Your task to perform on an android device: manage bookmarks in the chrome app Image 0: 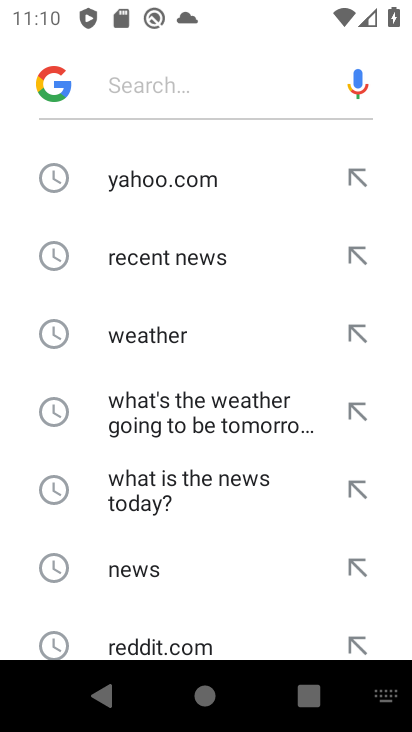
Step 0: press back button
Your task to perform on an android device: manage bookmarks in the chrome app Image 1: 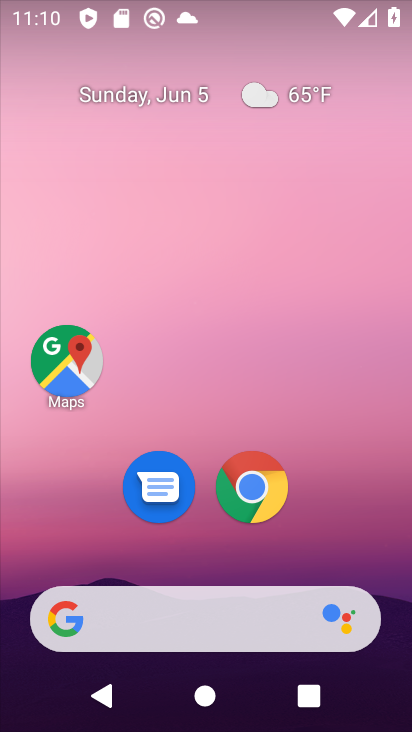
Step 1: click (255, 486)
Your task to perform on an android device: manage bookmarks in the chrome app Image 2: 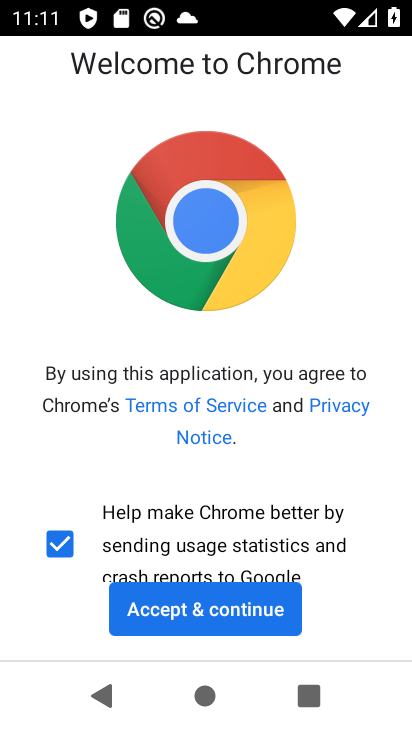
Step 2: click (198, 612)
Your task to perform on an android device: manage bookmarks in the chrome app Image 3: 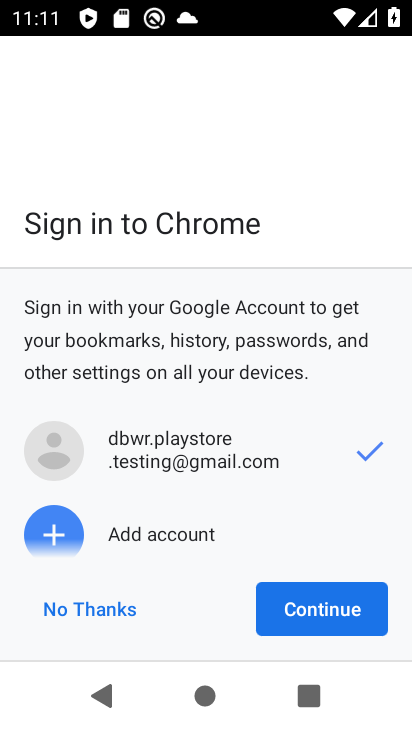
Step 3: click (318, 608)
Your task to perform on an android device: manage bookmarks in the chrome app Image 4: 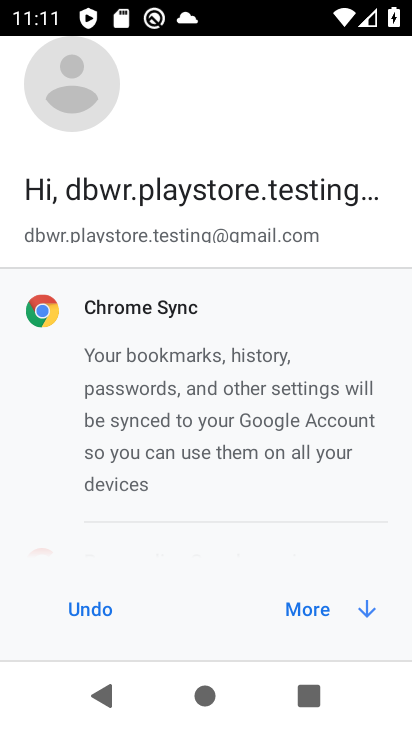
Step 4: click (312, 611)
Your task to perform on an android device: manage bookmarks in the chrome app Image 5: 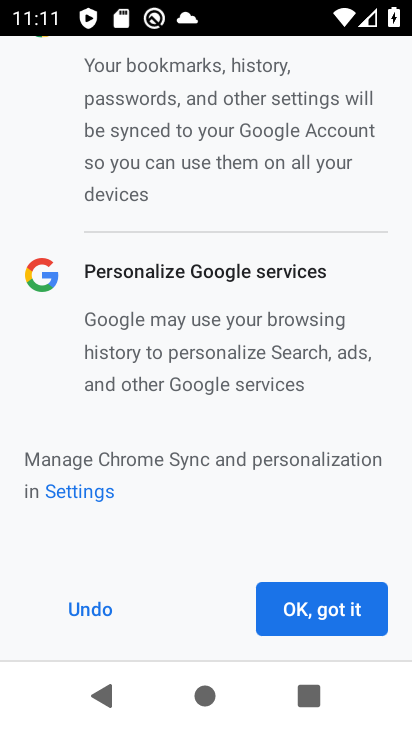
Step 5: click (312, 611)
Your task to perform on an android device: manage bookmarks in the chrome app Image 6: 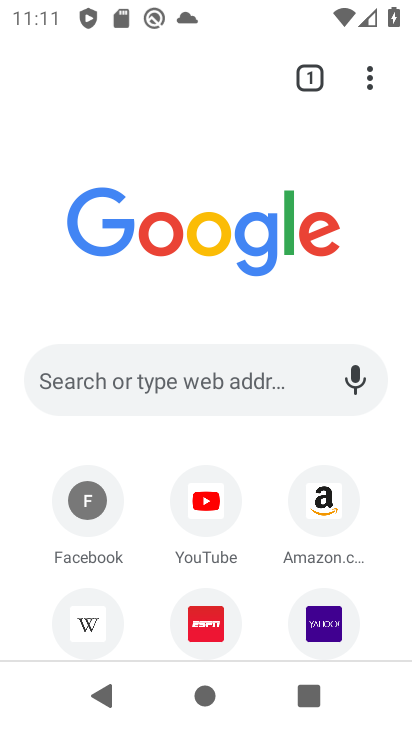
Step 6: click (370, 76)
Your task to perform on an android device: manage bookmarks in the chrome app Image 7: 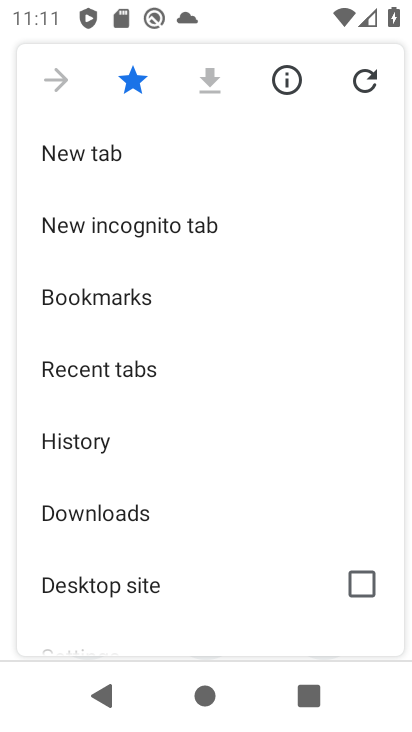
Step 7: click (150, 307)
Your task to perform on an android device: manage bookmarks in the chrome app Image 8: 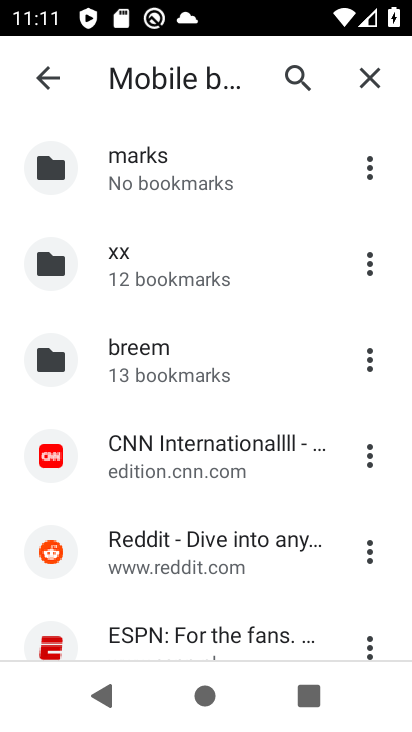
Step 8: click (375, 177)
Your task to perform on an android device: manage bookmarks in the chrome app Image 9: 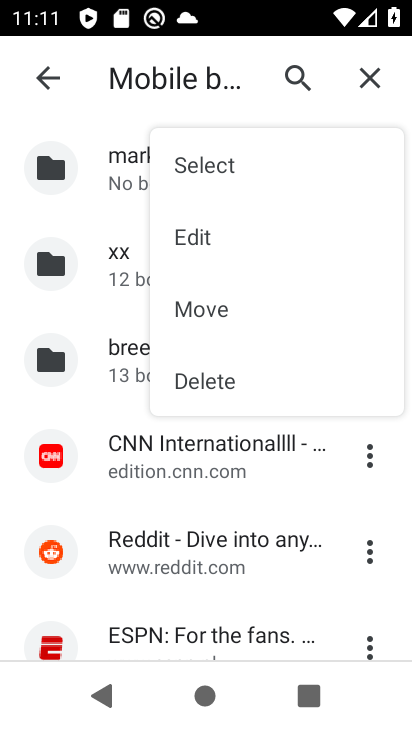
Step 9: click (262, 227)
Your task to perform on an android device: manage bookmarks in the chrome app Image 10: 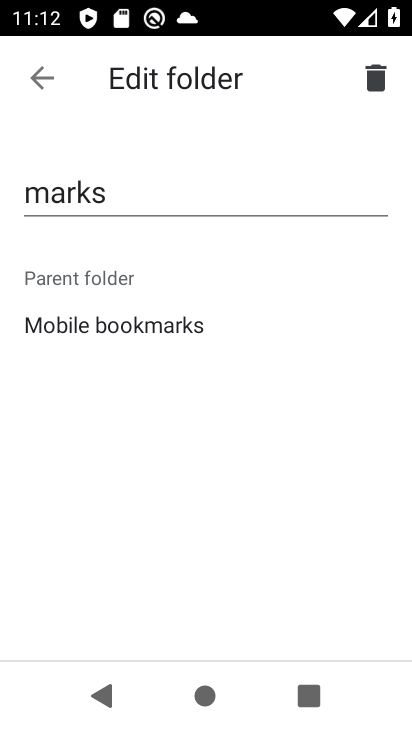
Step 10: click (395, 77)
Your task to perform on an android device: manage bookmarks in the chrome app Image 11: 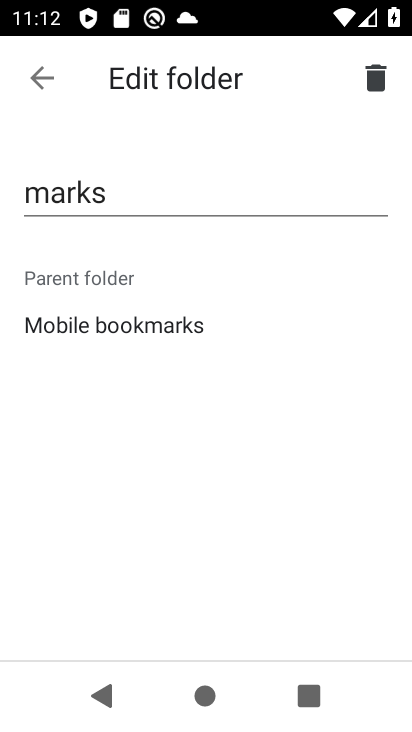
Step 11: click (385, 66)
Your task to perform on an android device: manage bookmarks in the chrome app Image 12: 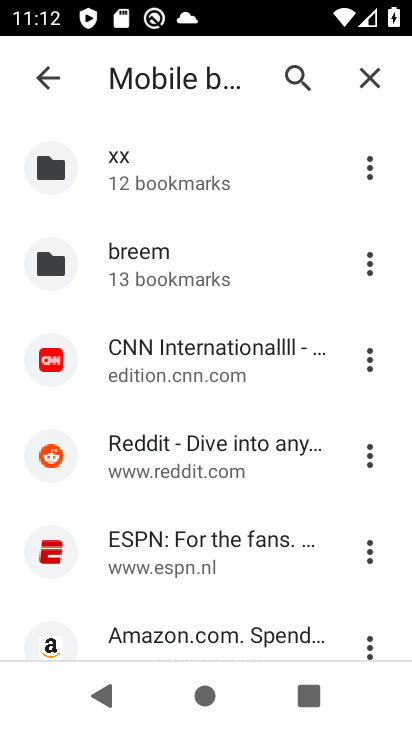
Step 12: task complete